Your task to perform on an android device: Go to Android settings Image 0: 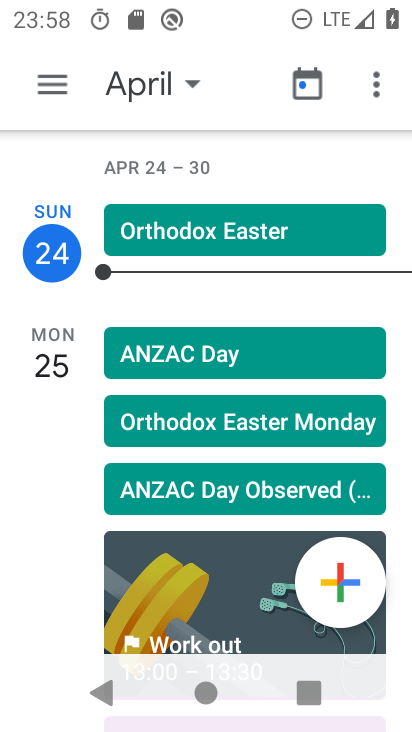
Step 0: press home button
Your task to perform on an android device: Go to Android settings Image 1: 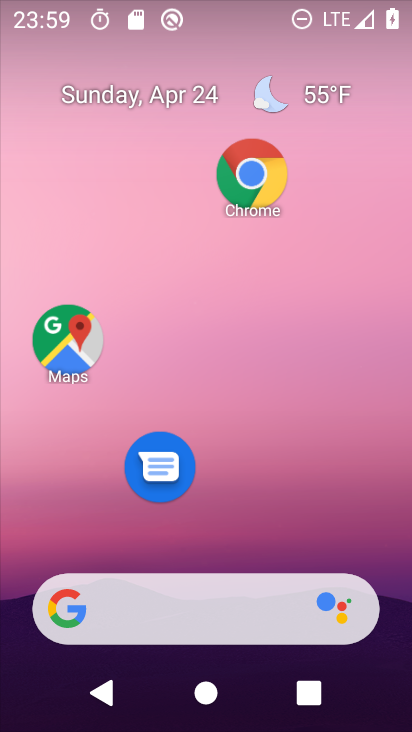
Step 1: drag from (268, 422) to (258, 24)
Your task to perform on an android device: Go to Android settings Image 2: 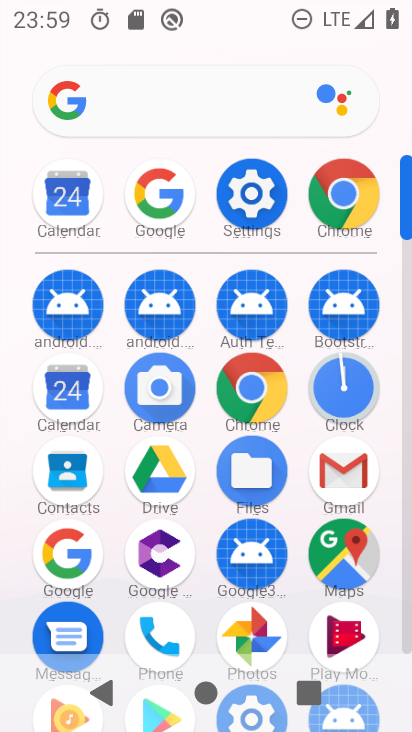
Step 2: click (250, 194)
Your task to perform on an android device: Go to Android settings Image 3: 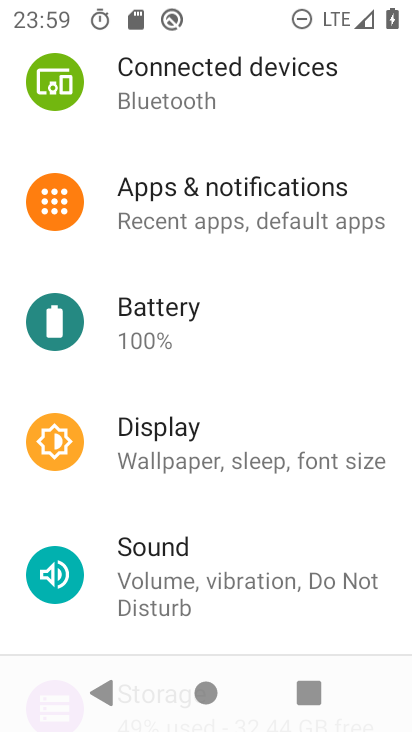
Step 3: task complete